Your task to perform on an android device: turn notification dots on Image 0: 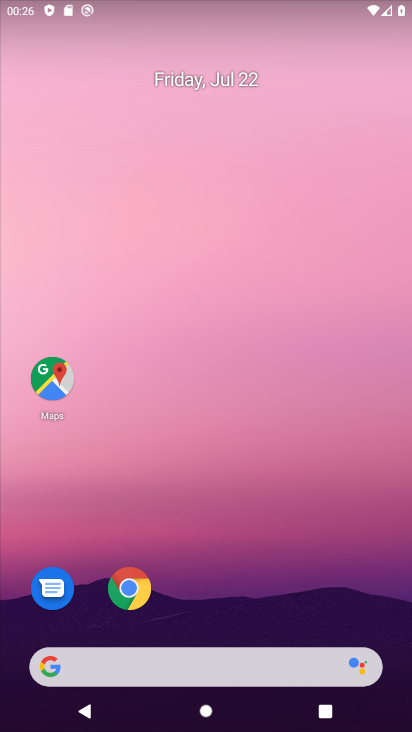
Step 0: drag from (238, 533) to (308, 5)
Your task to perform on an android device: turn notification dots on Image 1: 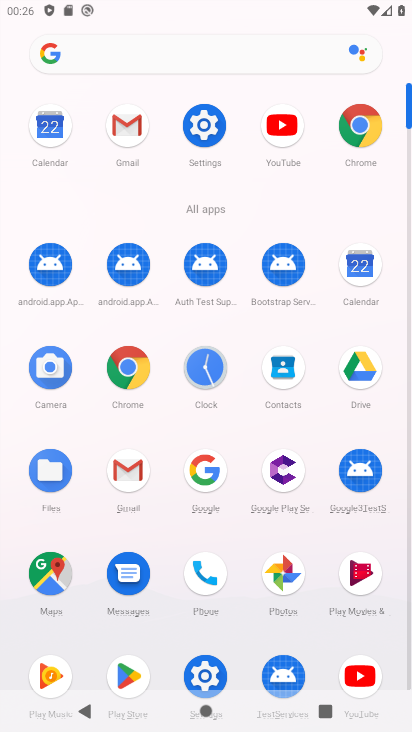
Step 1: click (214, 116)
Your task to perform on an android device: turn notification dots on Image 2: 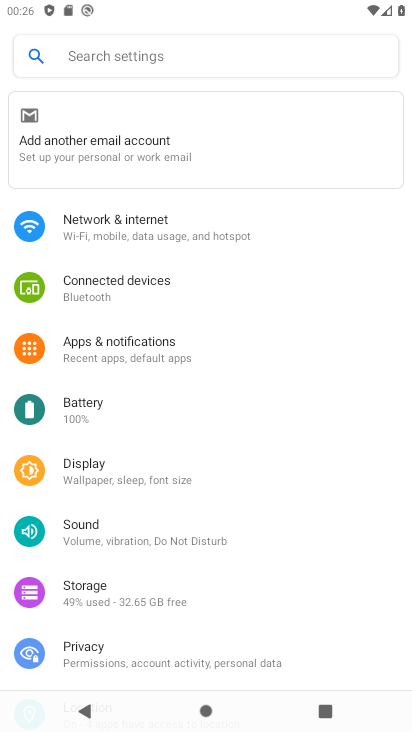
Step 2: click (210, 357)
Your task to perform on an android device: turn notification dots on Image 3: 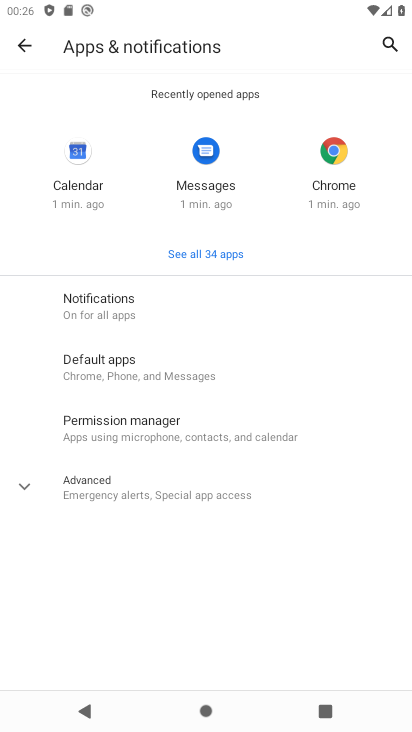
Step 3: click (137, 311)
Your task to perform on an android device: turn notification dots on Image 4: 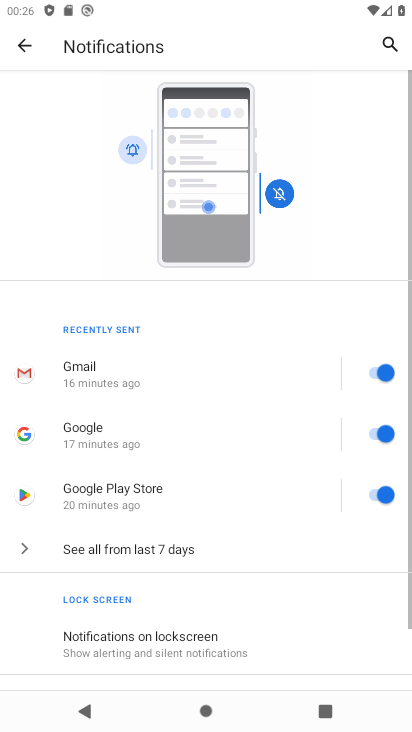
Step 4: drag from (140, 618) to (218, 79)
Your task to perform on an android device: turn notification dots on Image 5: 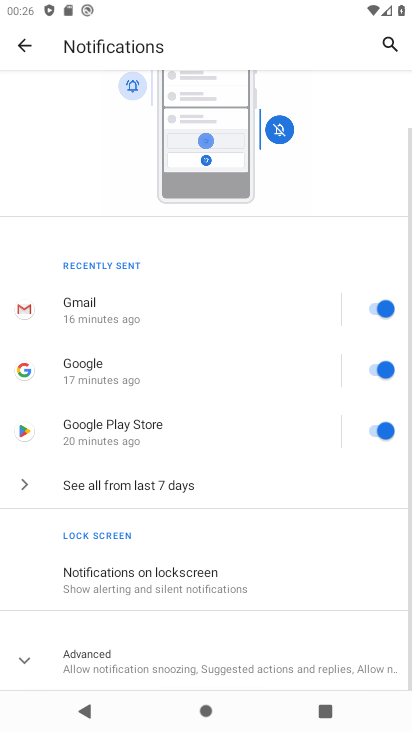
Step 5: click (108, 657)
Your task to perform on an android device: turn notification dots on Image 6: 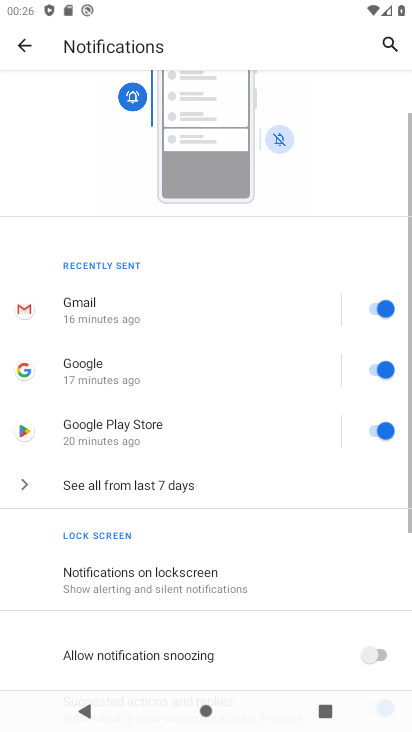
Step 6: drag from (146, 644) to (240, 184)
Your task to perform on an android device: turn notification dots on Image 7: 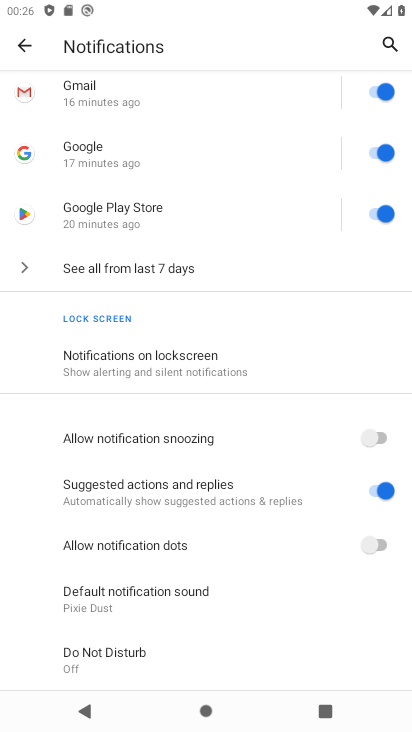
Step 7: click (375, 539)
Your task to perform on an android device: turn notification dots on Image 8: 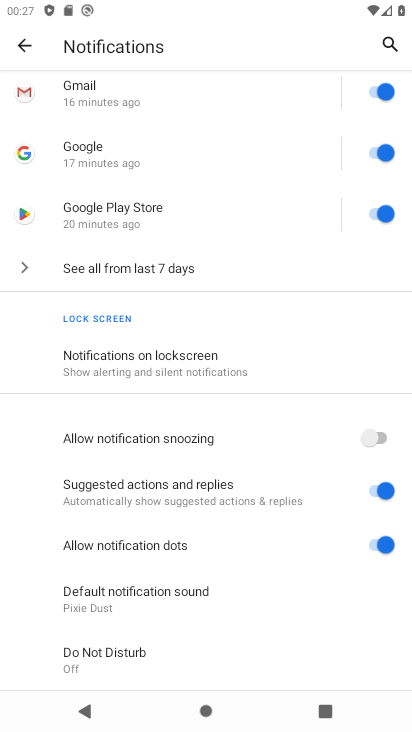
Step 8: task complete